Your task to perform on an android device: toggle pop-ups in chrome Image 0: 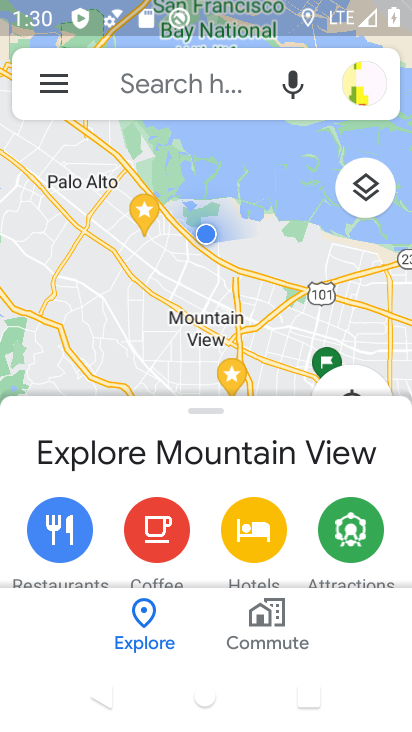
Step 0: press back button
Your task to perform on an android device: toggle pop-ups in chrome Image 1: 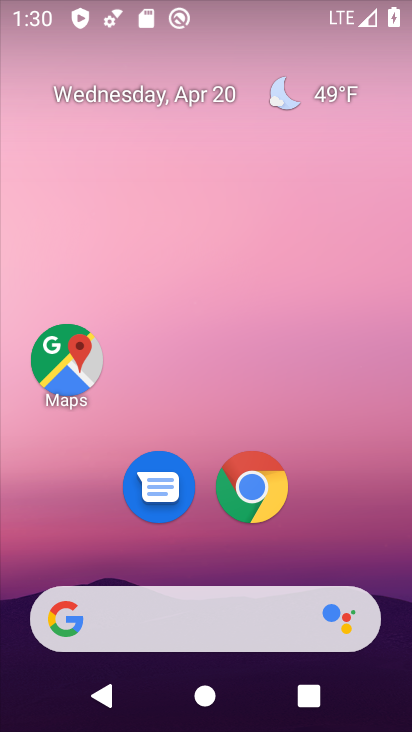
Step 1: click (261, 492)
Your task to perform on an android device: toggle pop-ups in chrome Image 2: 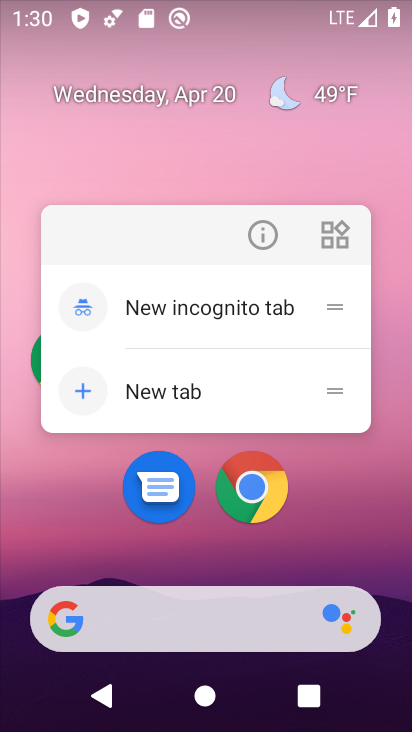
Step 2: click (261, 492)
Your task to perform on an android device: toggle pop-ups in chrome Image 3: 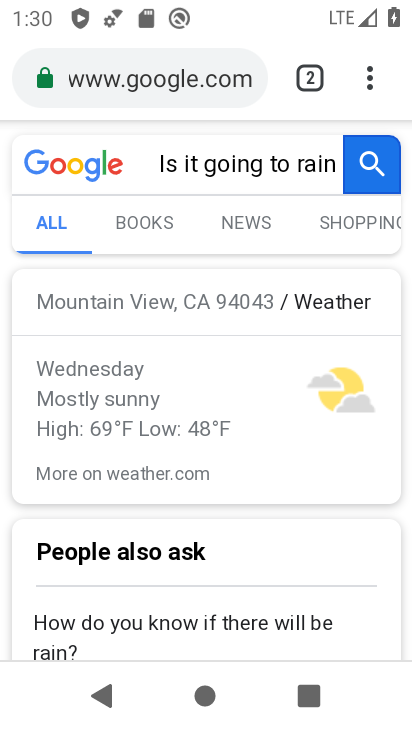
Step 3: click (372, 87)
Your task to perform on an android device: toggle pop-ups in chrome Image 4: 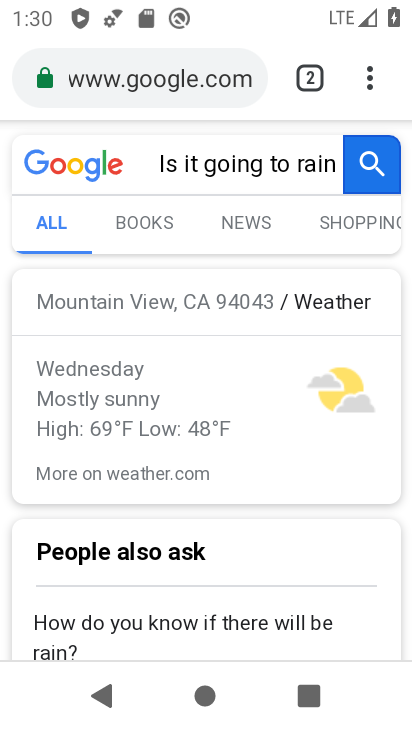
Step 4: click (372, 87)
Your task to perform on an android device: toggle pop-ups in chrome Image 5: 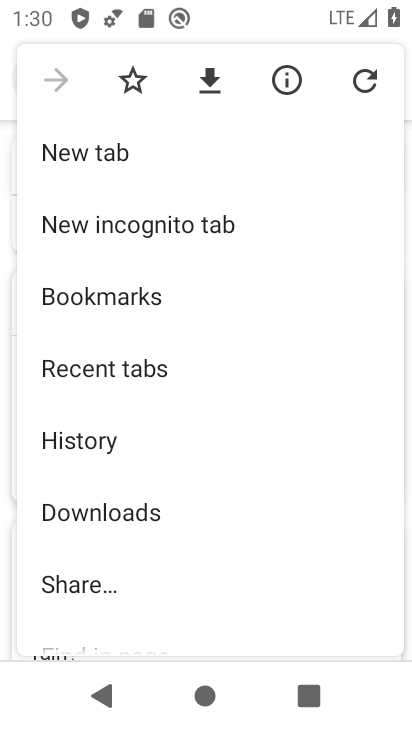
Step 5: drag from (188, 563) to (227, 229)
Your task to perform on an android device: toggle pop-ups in chrome Image 6: 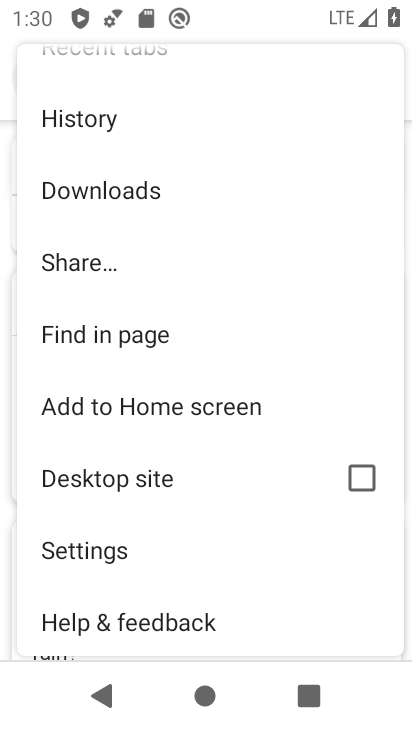
Step 6: click (179, 555)
Your task to perform on an android device: toggle pop-ups in chrome Image 7: 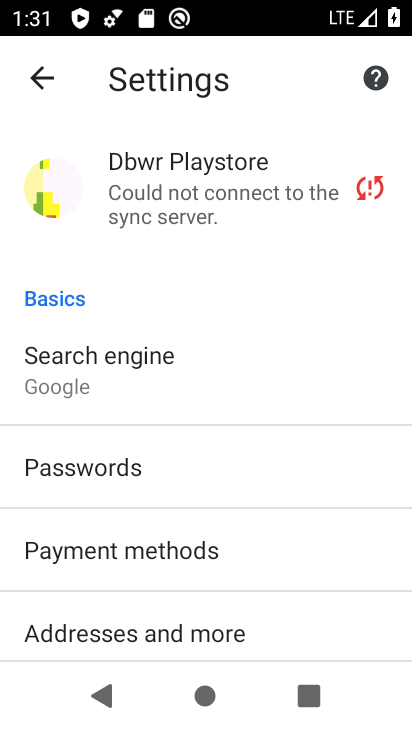
Step 7: drag from (275, 595) to (276, 220)
Your task to perform on an android device: toggle pop-ups in chrome Image 8: 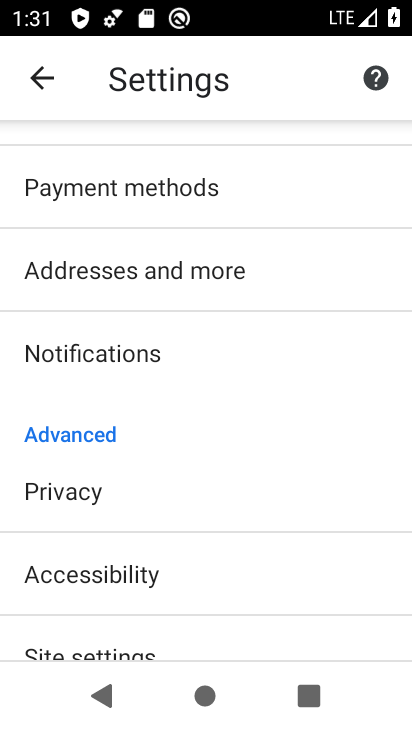
Step 8: drag from (278, 493) to (251, 159)
Your task to perform on an android device: toggle pop-ups in chrome Image 9: 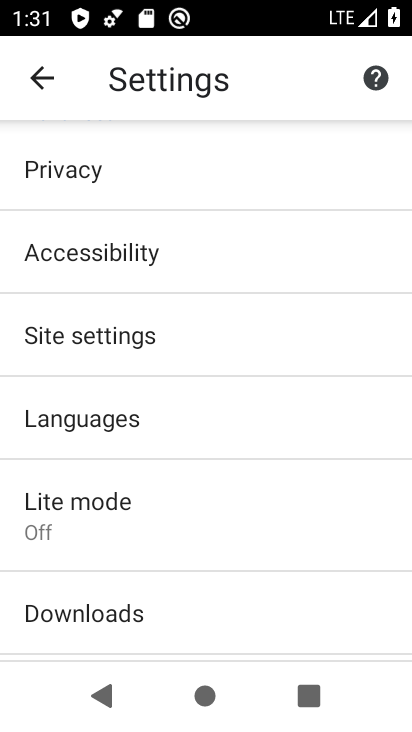
Step 9: click (242, 348)
Your task to perform on an android device: toggle pop-ups in chrome Image 10: 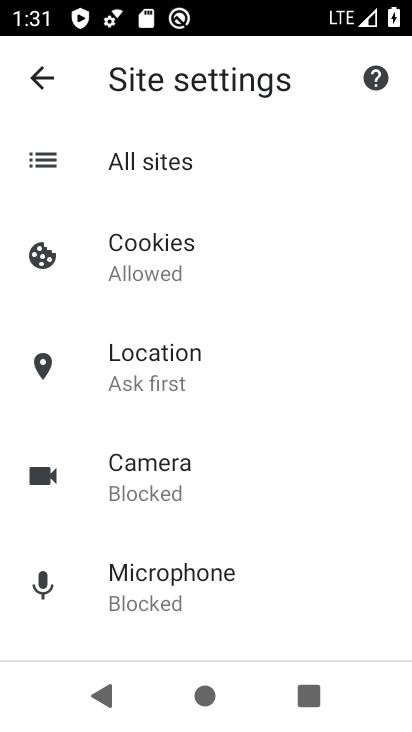
Step 10: drag from (268, 598) to (287, 127)
Your task to perform on an android device: toggle pop-ups in chrome Image 11: 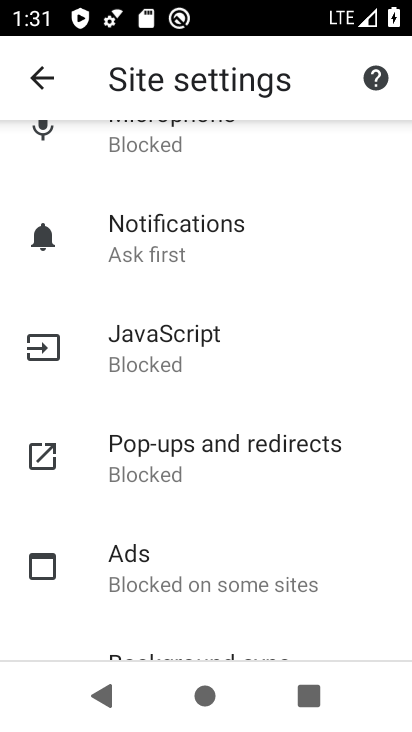
Step 11: click (301, 444)
Your task to perform on an android device: toggle pop-ups in chrome Image 12: 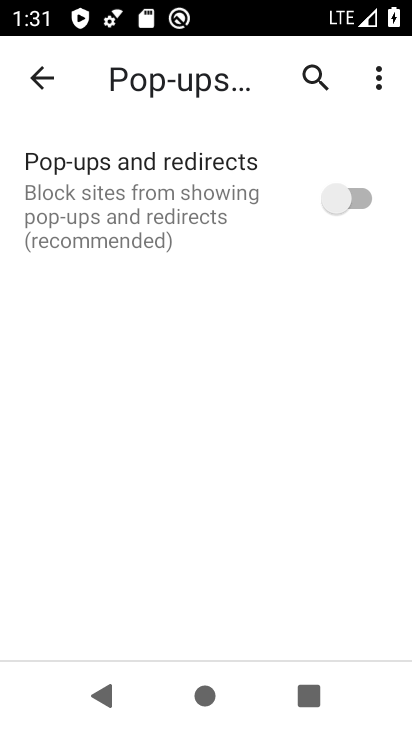
Step 12: click (351, 212)
Your task to perform on an android device: toggle pop-ups in chrome Image 13: 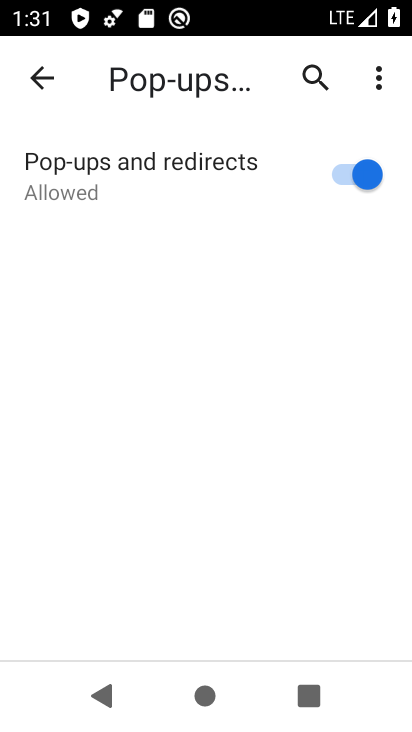
Step 13: task complete